Your task to perform on an android device: Is it going to rain this weekend? Image 0: 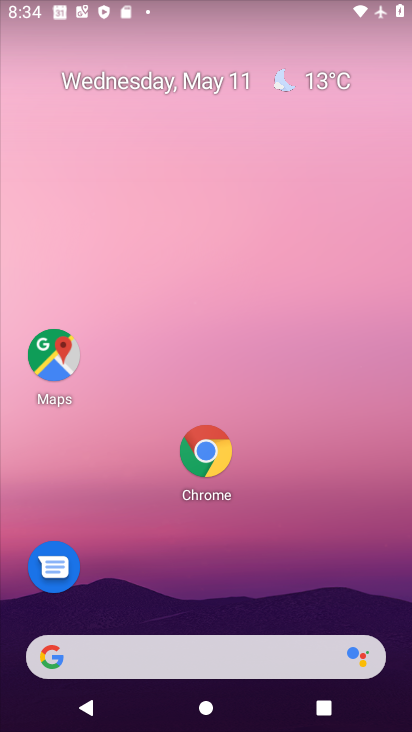
Step 0: click (350, 78)
Your task to perform on an android device: Is it going to rain this weekend? Image 1: 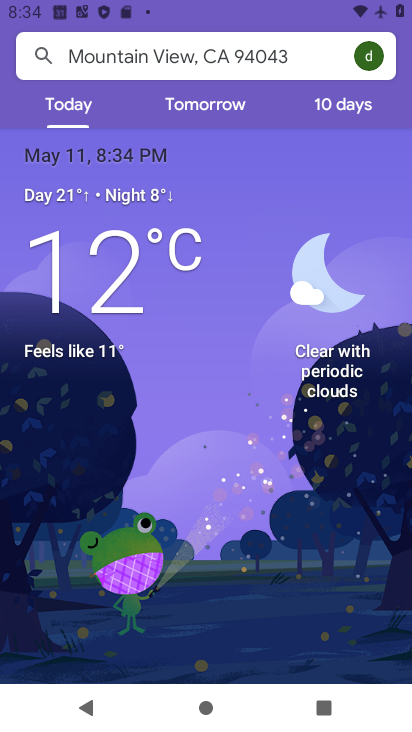
Step 1: click (331, 110)
Your task to perform on an android device: Is it going to rain this weekend? Image 2: 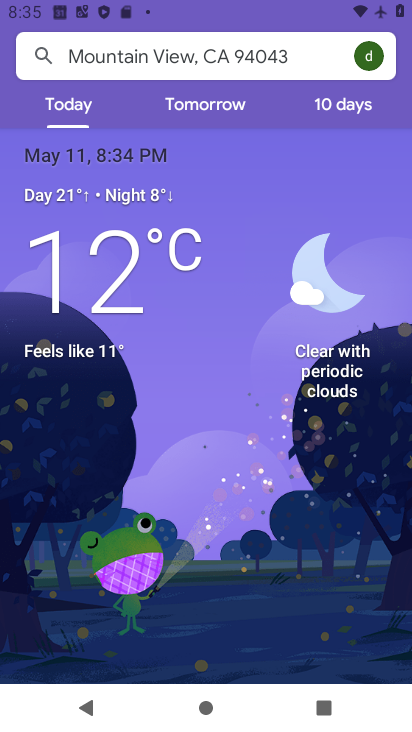
Step 2: click (334, 102)
Your task to perform on an android device: Is it going to rain this weekend? Image 3: 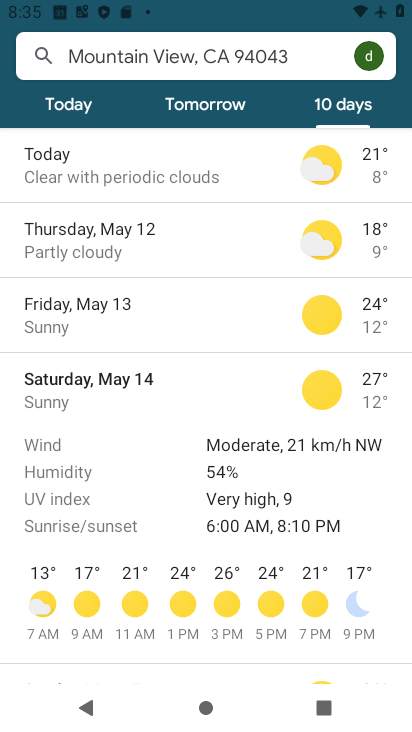
Step 3: task complete